Your task to perform on an android device: find photos in the google photos app Image 0: 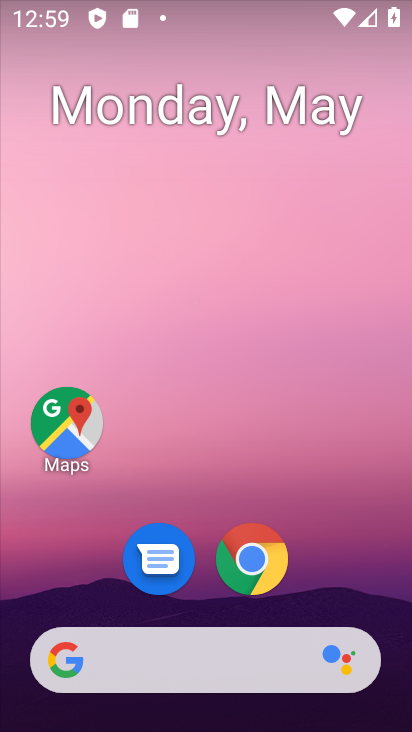
Step 0: drag from (196, 715) to (150, 140)
Your task to perform on an android device: find photos in the google photos app Image 1: 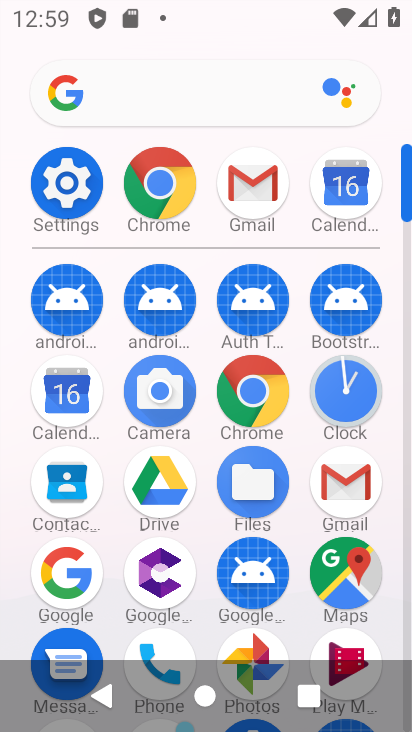
Step 1: click (265, 638)
Your task to perform on an android device: find photos in the google photos app Image 2: 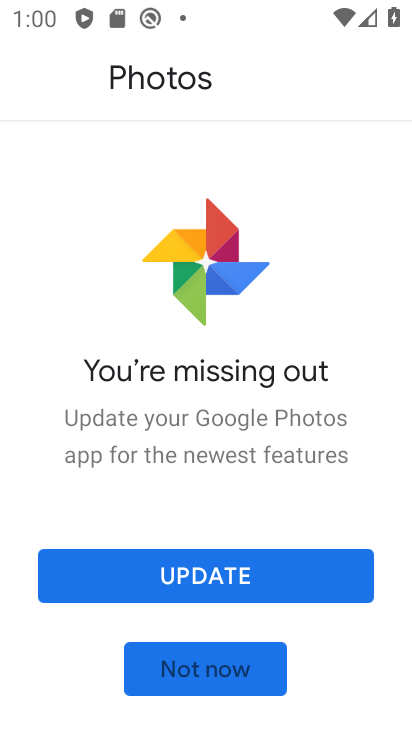
Step 2: click (286, 565)
Your task to perform on an android device: find photos in the google photos app Image 3: 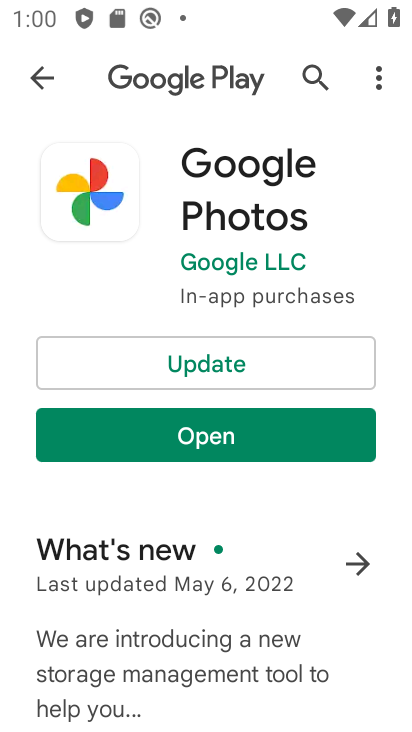
Step 3: click (290, 360)
Your task to perform on an android device: find photos in the google photos app Image 4: 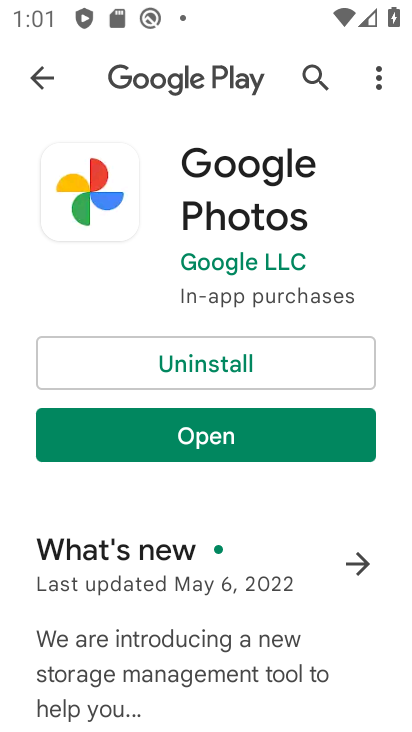
Step 4: click (260, 437)
Your task to perform on an android device: find photos in the google photos app Image 5: 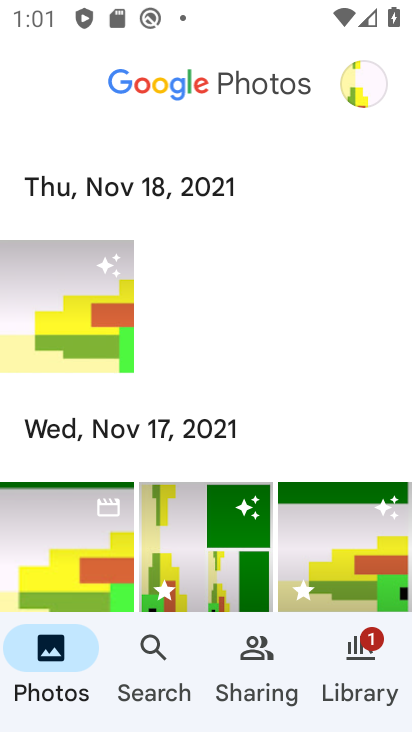
Step 5: task complete